Your task to perform on an android device: Open Google Image 0: 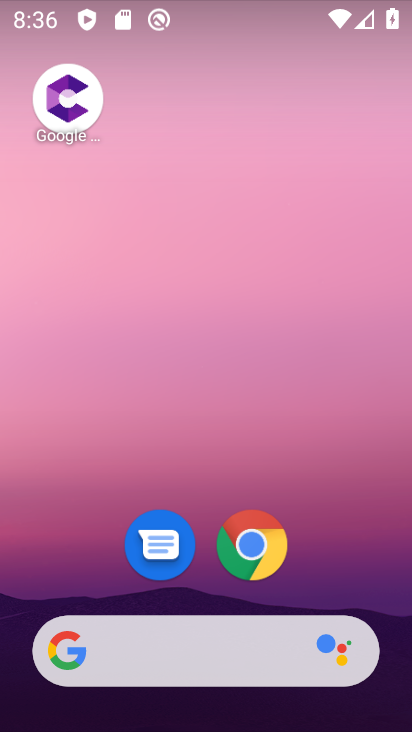
Step 0: drag from (339, 574) to (227, 36)
Your task to perform on an android device: Open Google Image 1: 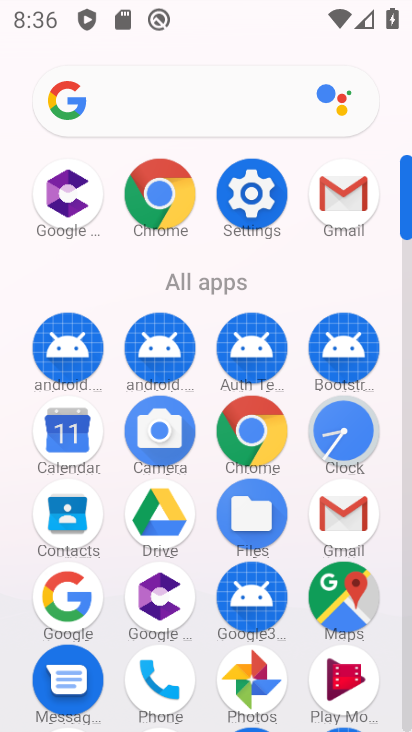
Step 1: click (158, 189)
Your task to perform on an android device: Open Google Image 2: 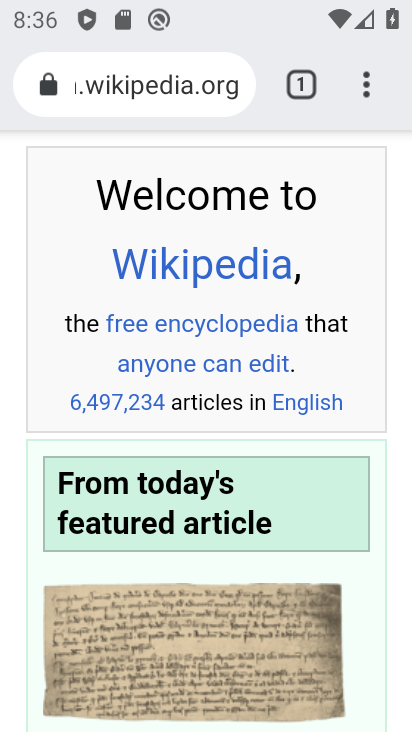
Step 2: click (175, 86)
Your task to perform on an android device: Open Google Image 3: 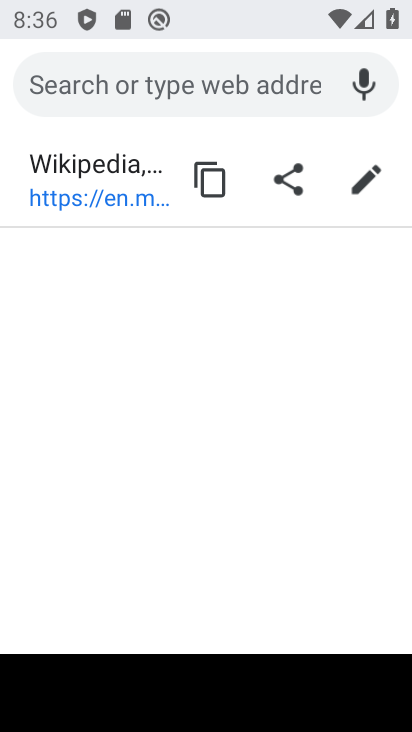
Step 3: type "Google"
Your task to perform on an android device: Open Google Image 4: 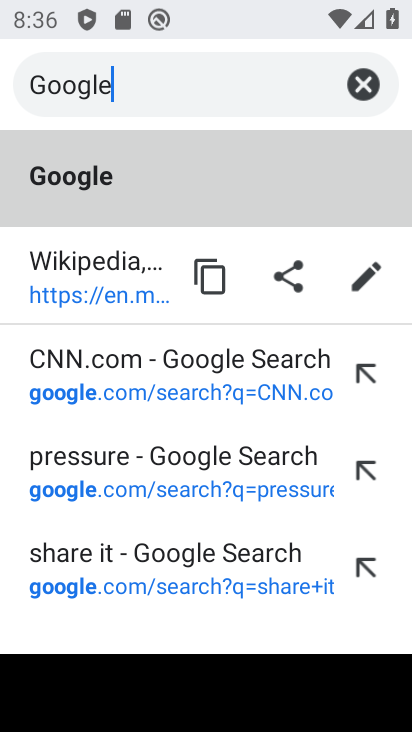
Step 4: type ""
Your task to perform on an android device: Open Google Image 5: 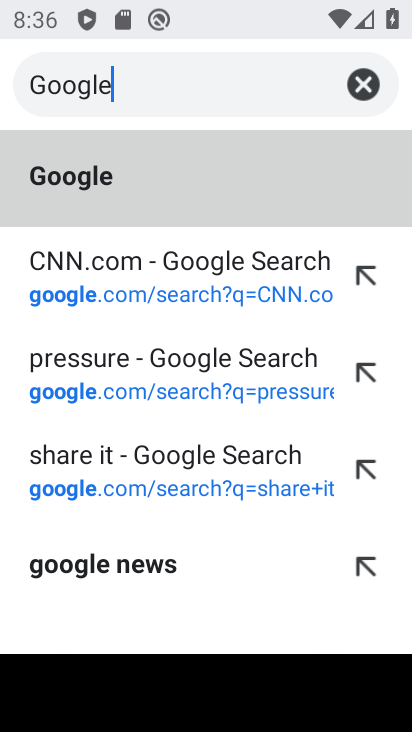
Step 5: click (144, 178)
Your task to perform on an android device: Open Google Image 6: 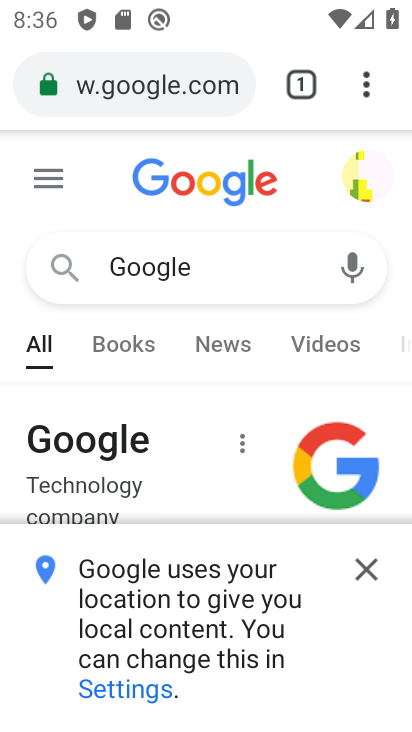
Step 6: drag from (170, 490) to (188, 134)
Your task to perform on an android device: Open Google Image 7: 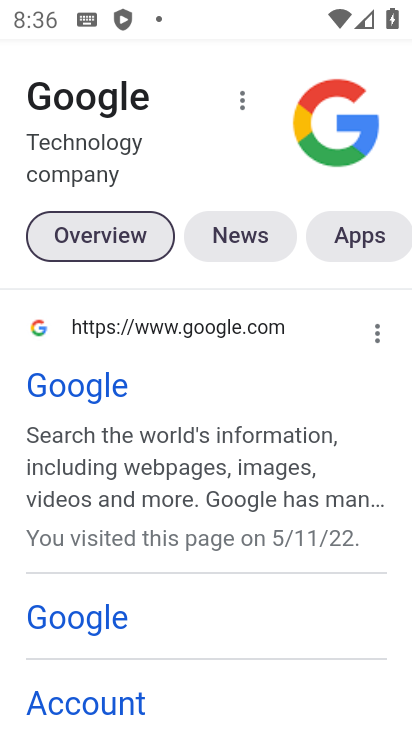
Step 7: click (77, 390)
Your task to perform on an android device: Open Google Image 8: 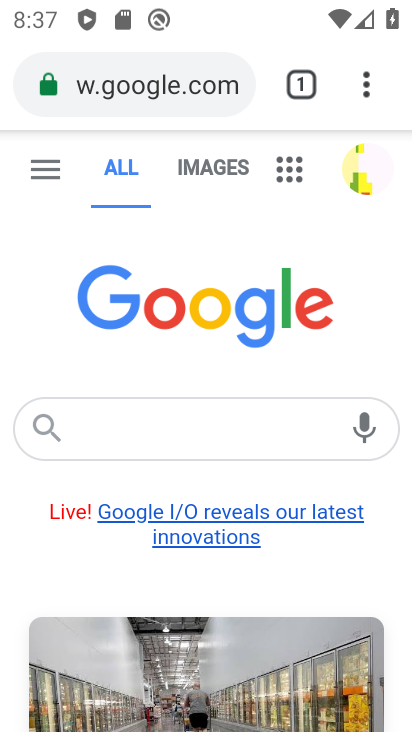
Step 8: task complete